Your task to perform on an android device: What's on my calendar today? Image 0: 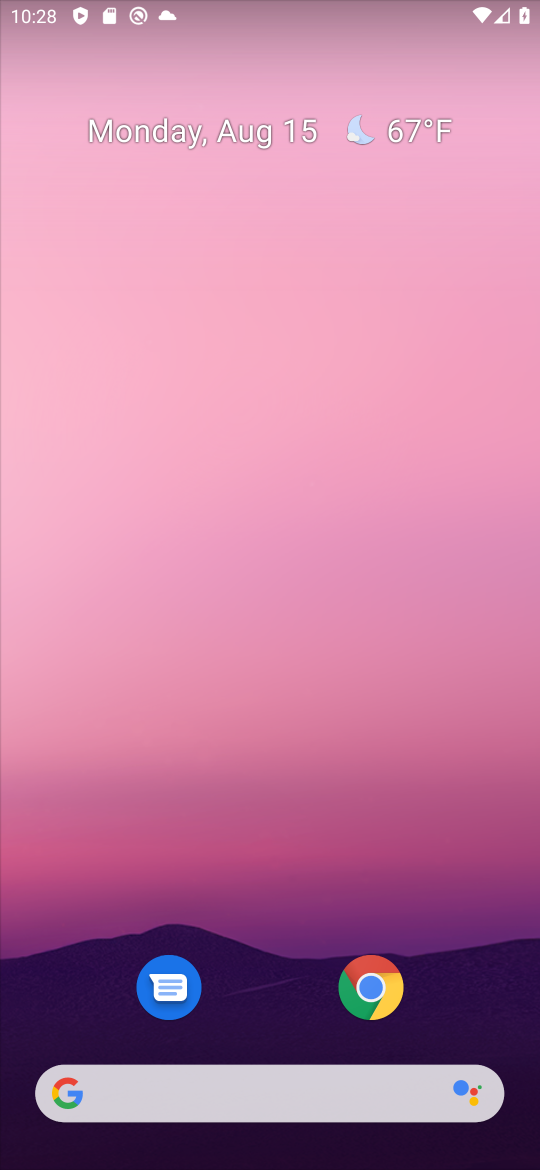
Step 0: drag from (242, 1047) to (247, 286)
Your task to perform on an android device: What's on my calendar today? Image 1: 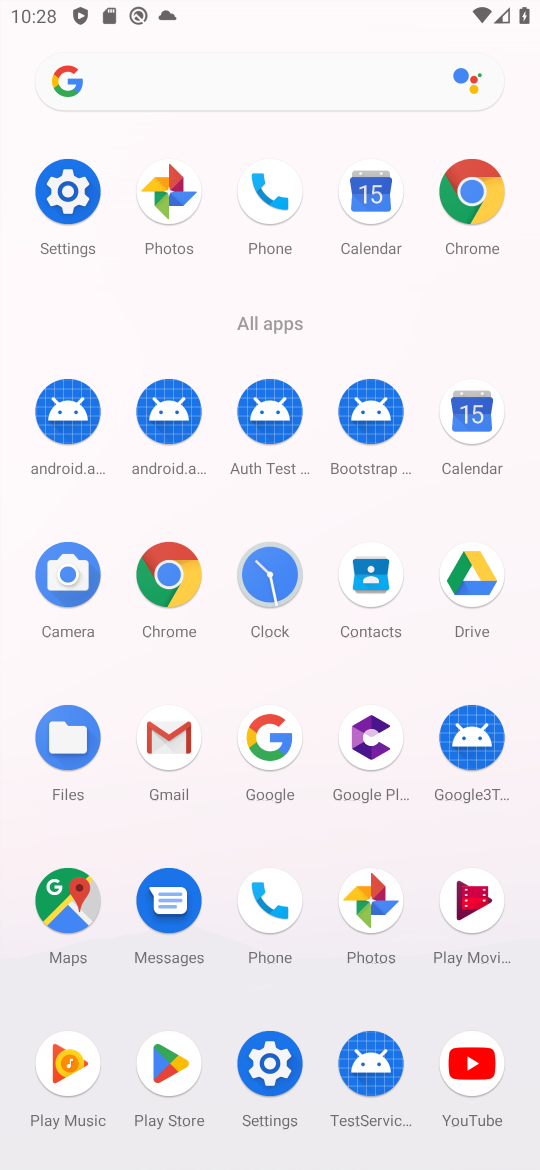
Step 1: click (471, 414)
Your task to perform on an android device: What's on my calendar today? Image 2: 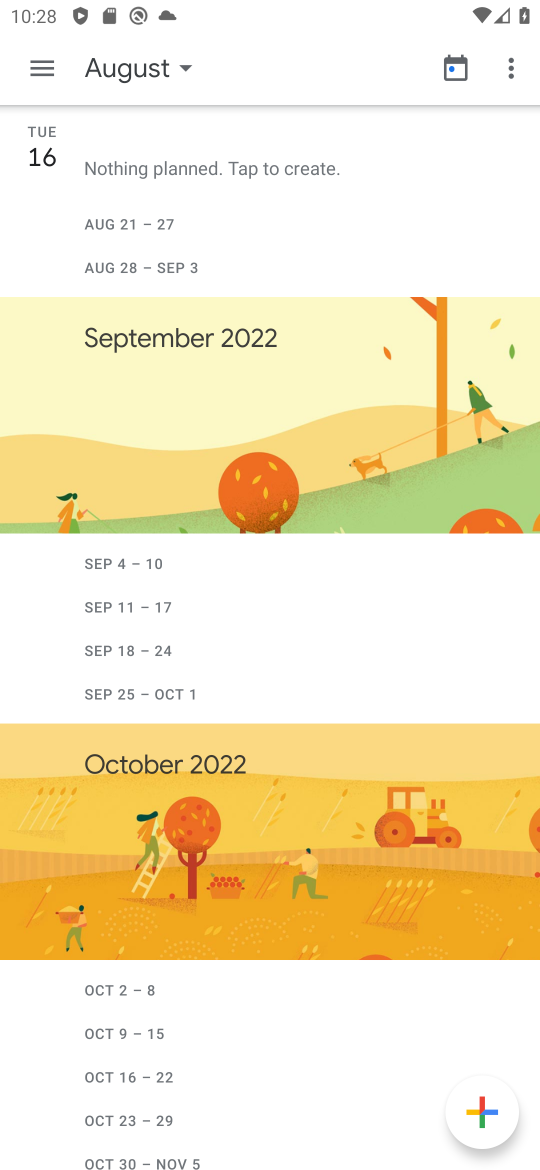
Step 2: click (441, 61)
Your task to perform on an android device: What's on my calendar today? Image 3: 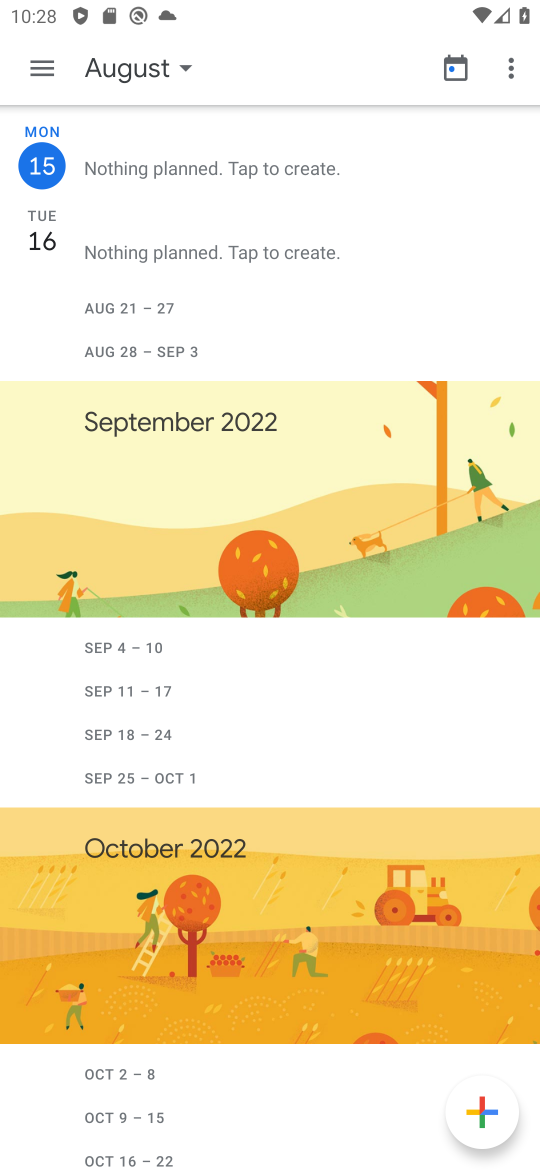
Step 3: click (39, 166)
Your task to perform on an android device: What's on my calendar today? Image 4: 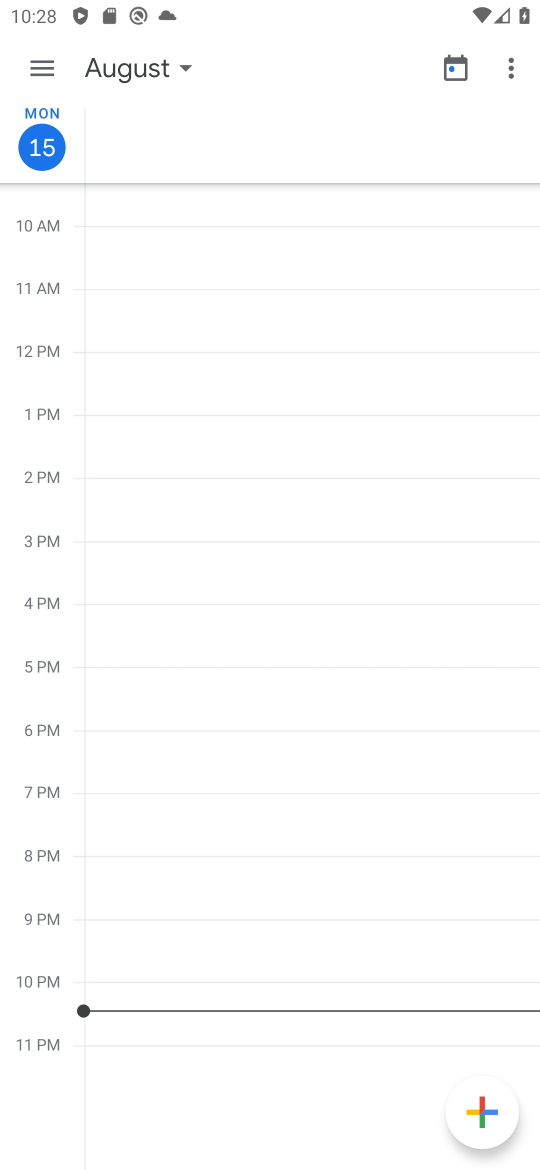
Step 4: click (42, 150)
Your task to perform on an android device: What's on my calendar today? Image 5: 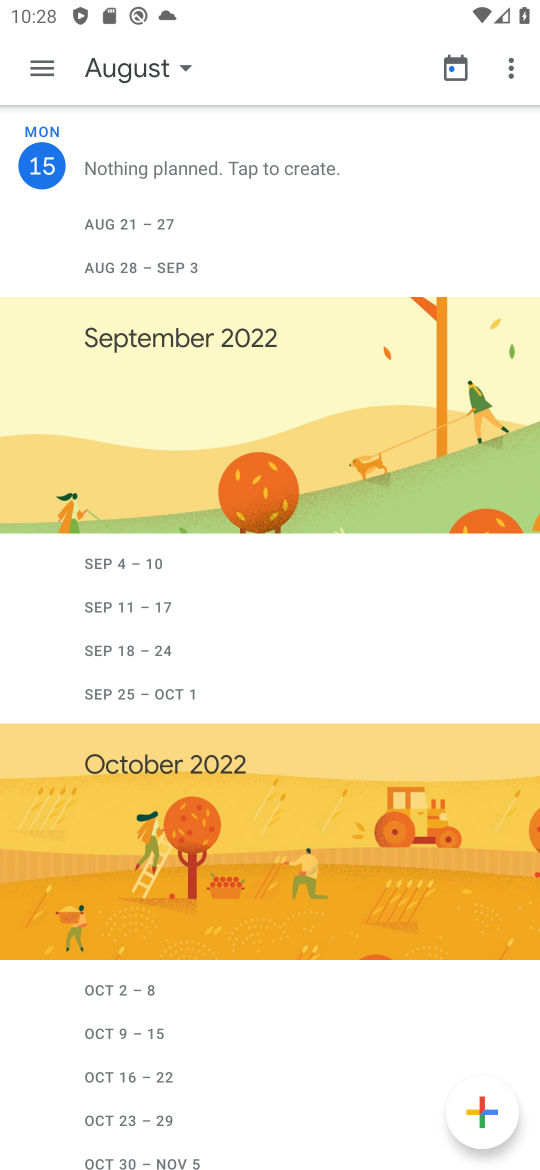
Step 5: task complete